Your task to perform on an android device: check the backup settings in the google photos Image 0: 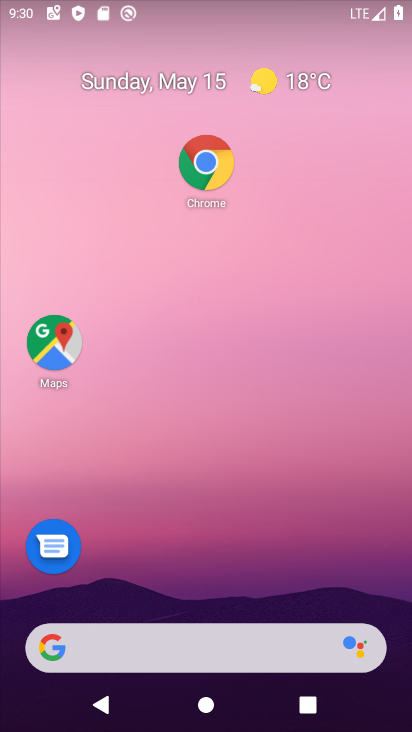
Step 0: drag from (293, 575) to (279, 186)
Your task to perform on an android device: check the backup settings in the google photos Image 1: 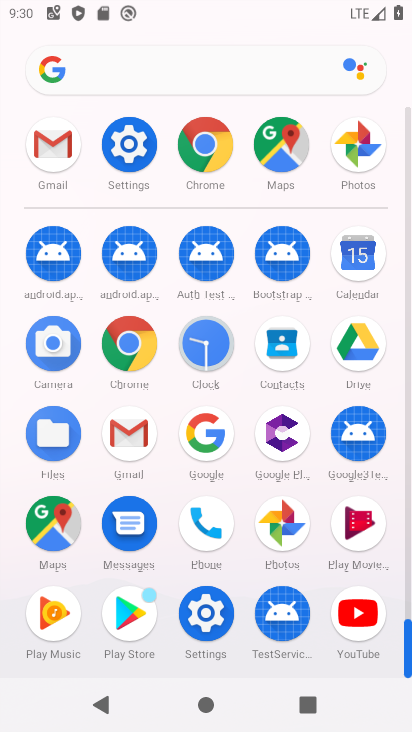
Step 1: click (272, 514)
Your task to perform on an android device: check the backup settings in the google photos Image 2: 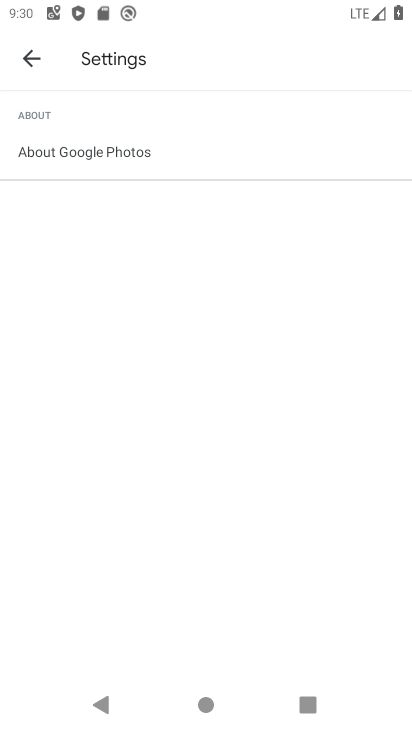
Step 2: click (21, 63)
Your task to perform on an android device: check the backup settings in the google photos Image 3: 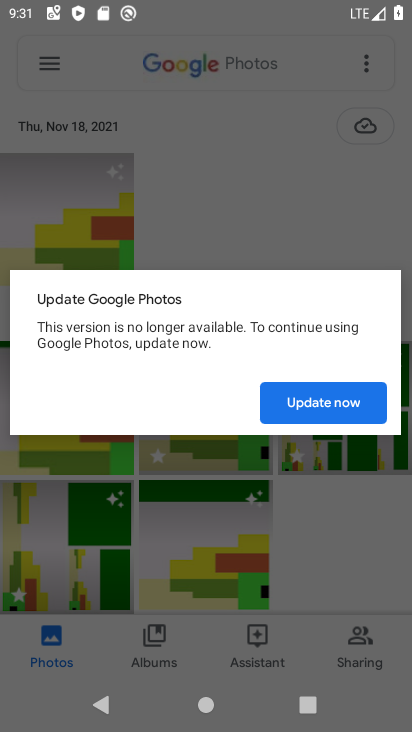
Step 3: click (323, 398)
Your task to perform on an android device: check the backup settings in the google photos Image 4: 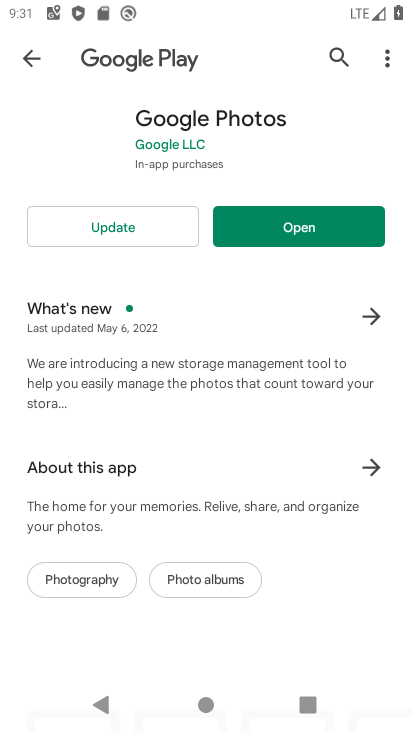
Step 4: press back button
Your task to perform on an android device: check the backup settings in the google photos Image 5: 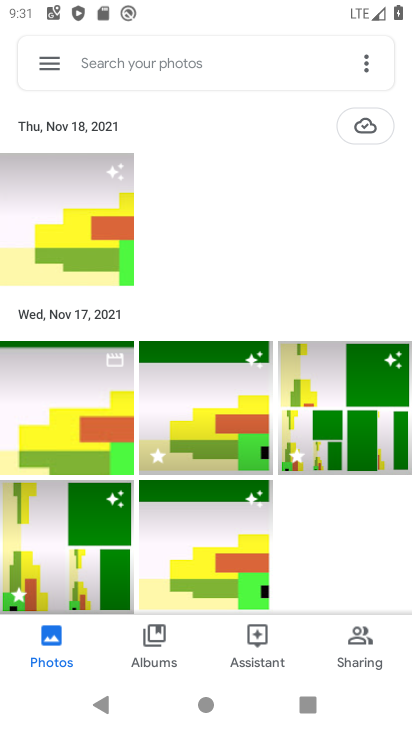
Step 5: click (42, 65)
Your task to perform on an android device: check the backup settings in the google photos Image 6: 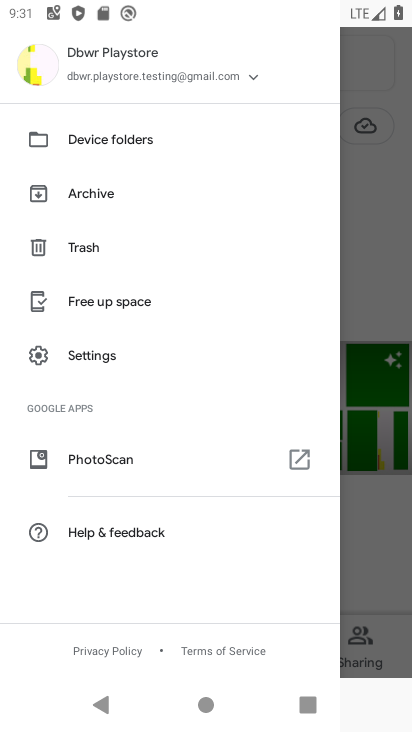
Step 6: click (92, 350)
Your task to perform on an android device: check the backup settings in the google photos Image 7: 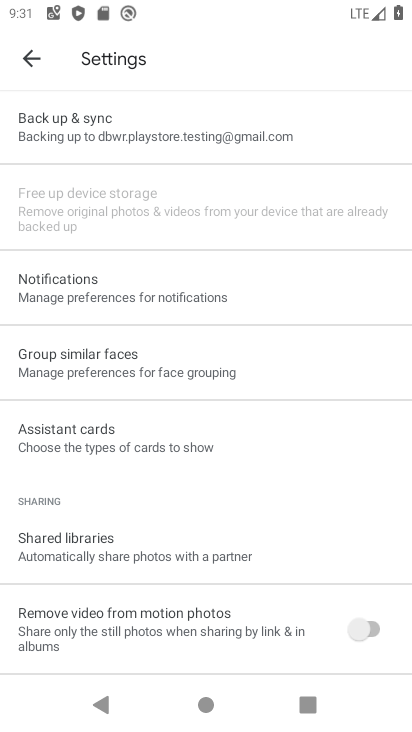
Step 7: click (118, 129)
Your task to perform on an android device: check the backup settings in the google photos Image 8: 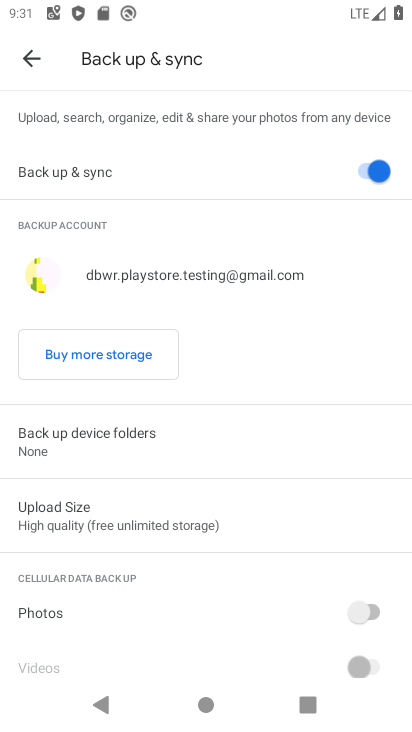
Step 8: task complete